Your task to perform on an android device: open a bookmark in the chrome app Image 0: 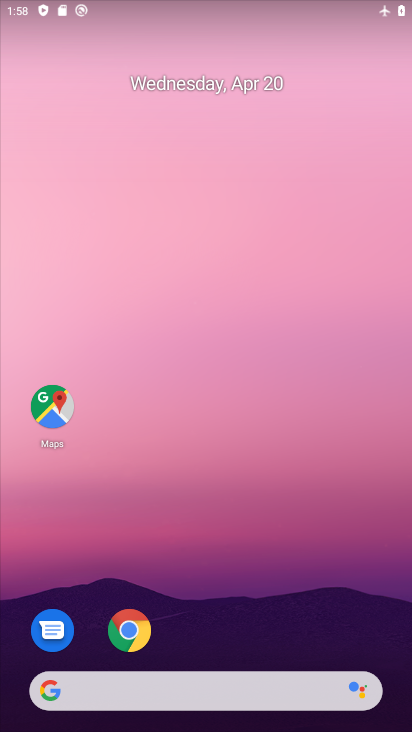
Step 0: drag from (259, 620) to (162, 180)
Your task to perform on an android device: open a bookmark in the chrome app Image 1: 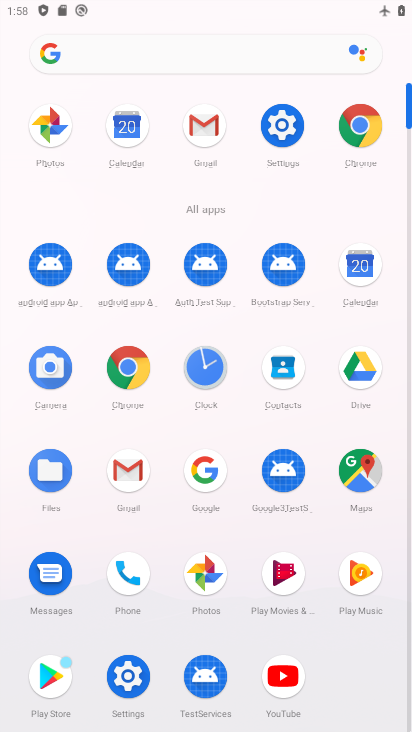
Step 1: click (365, 117)
Your task to perform on an android device: open a bookmark in the chrome app Image 2: 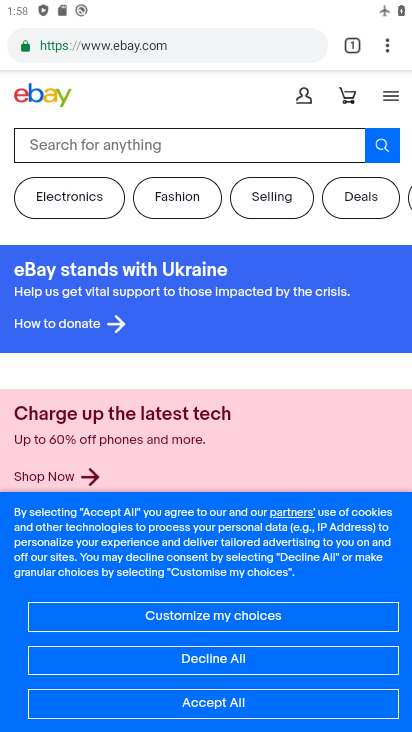
Step 2: click (388, 54)
Your task to perform on an android device: open a bookmark in the chrome app Image 3: 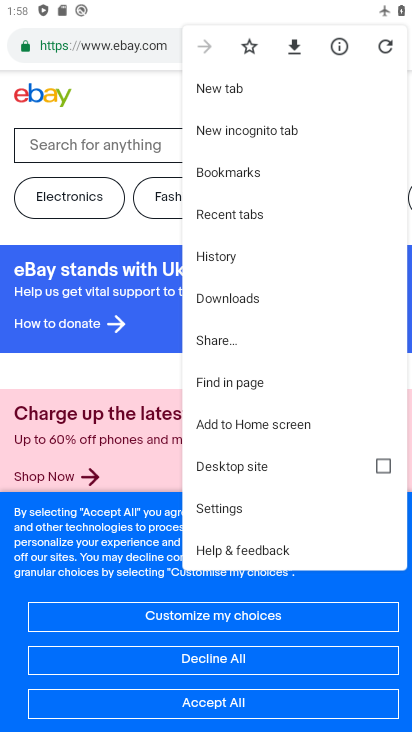
Step 3: click (231, 177)
Your task to perform on an android device: open a bookmark in the chrome app Image 4: 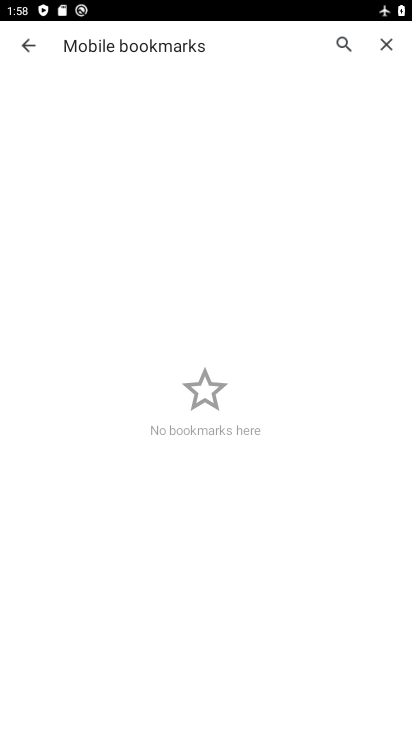
Step 4: task complete